Your task to perform on an android device: change the clock display to digital Image 0: 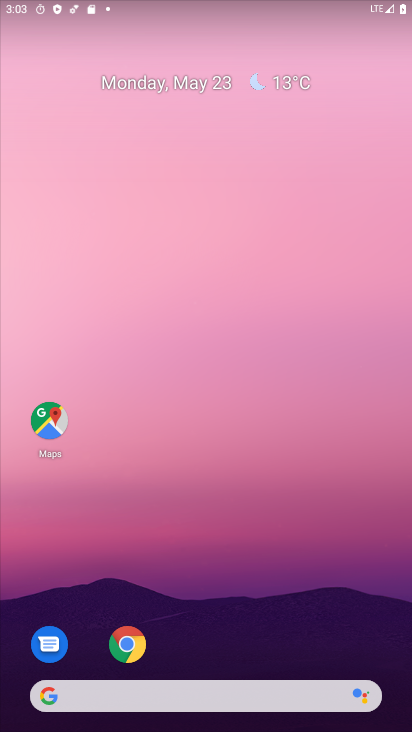
Step 0: drag from (210, 673) to (286, 38)
Your task to perform on an android device: change the clock display to digital Image 1: 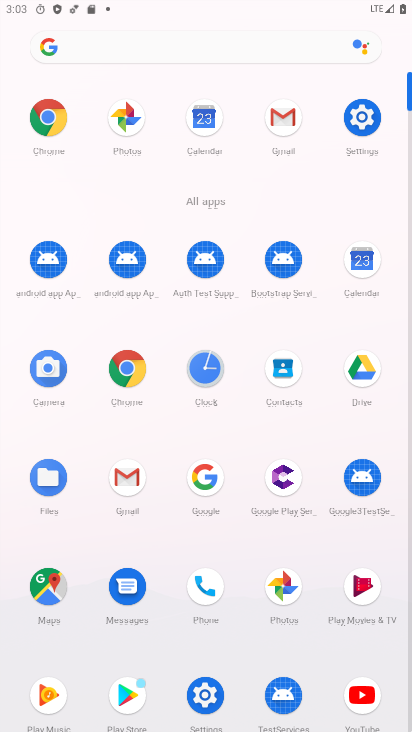
Step 1: click (211, 377)
Your task to perform on an android device: change the clock display to digital Image 2: 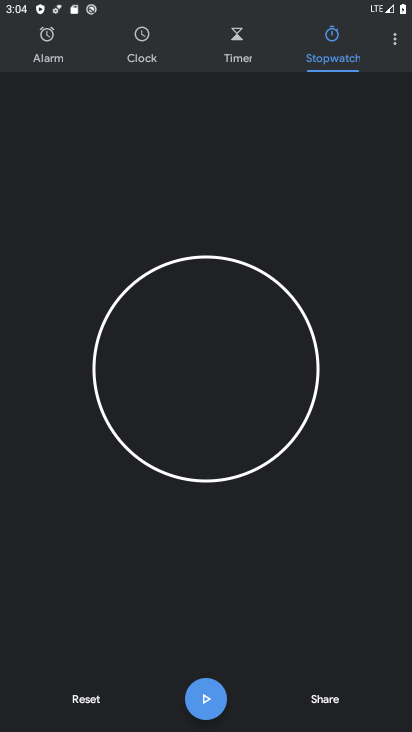
Step 2: click (393, 45)
Your task to perform on an android device: change the clock display to digital Image 3: 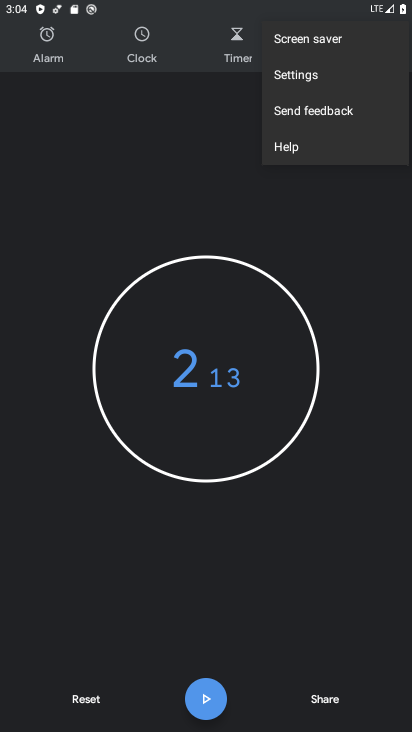
Step 3: click (294, 86)
Your task to perform on an android device: change the clock display to digital Image 4: 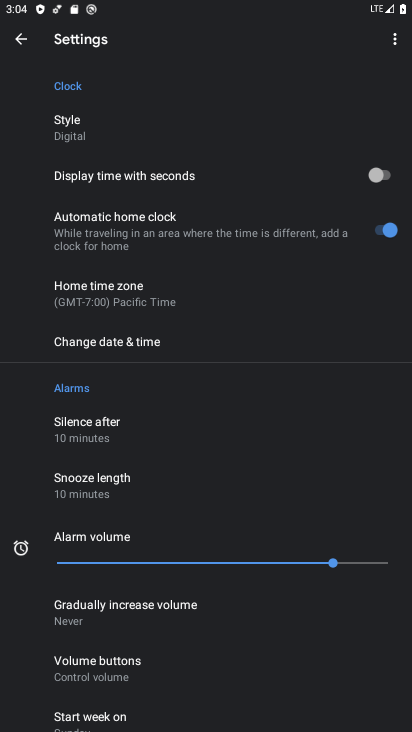
Step 4: task complete